Your task to perform on an android device: toggle airplane mode Image 0: 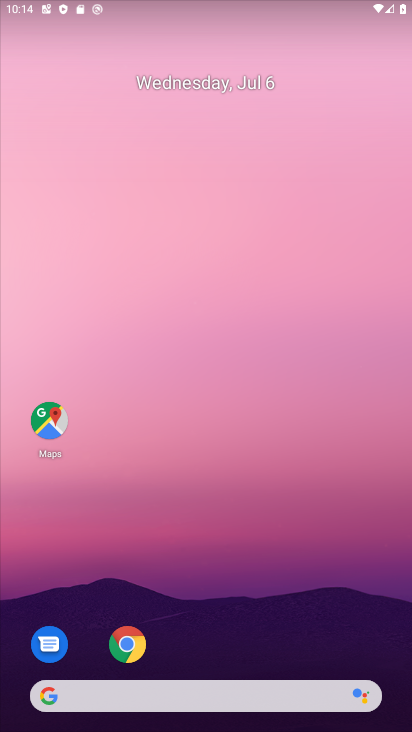
Step 0: drag from (271, 721) to (206, 252)
Your task to perform on an android device: toggle airplane mode Image 1: 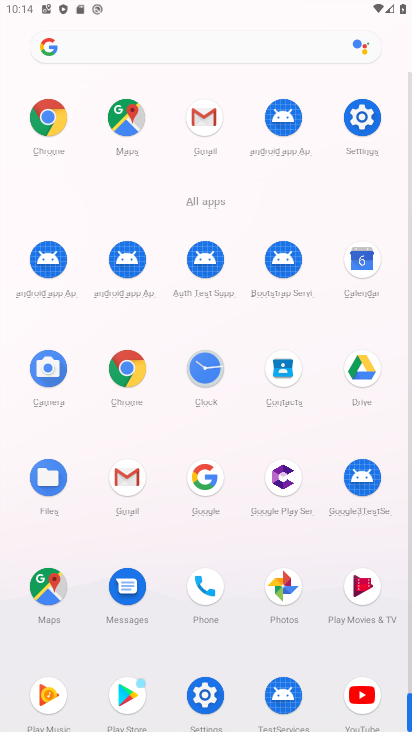
Step 1: click (358, 116)
Your task to perform on an android device: toggle airplane mode Image 2: 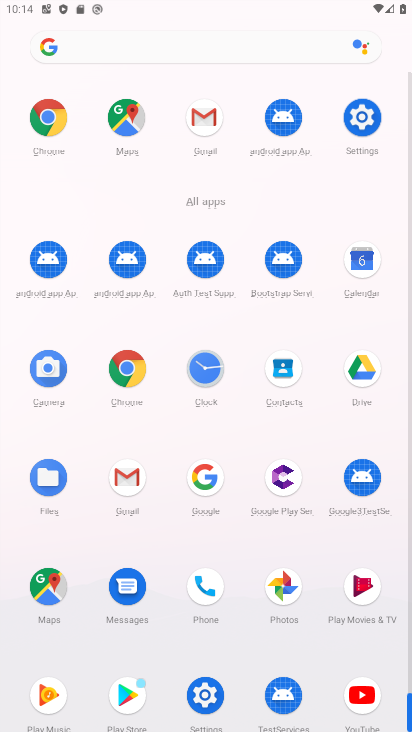
Step 2: click (364, 119)
Your task to perform on an android device: toggle airplane mode Image 3: 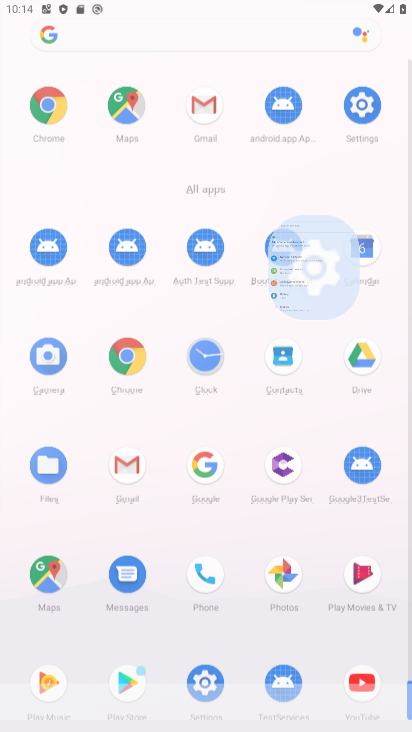
Step 3: click (364, 125)
Your task to perform on an android device: toggle airplane mode Image 4: 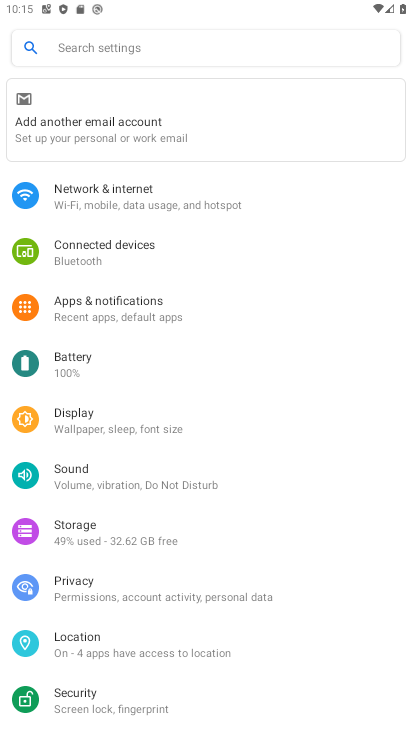
Step 4: drag from (107, 210) to (173, 204)
Your task to perform on an android device: toggle airplane mode Image 5: 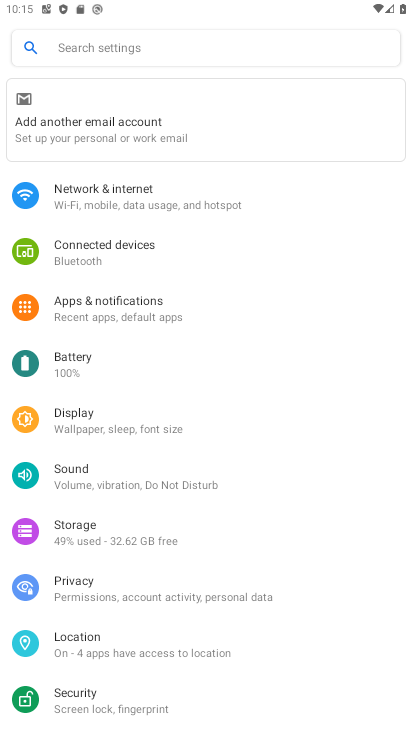
Step 5: click (170, 206)
Your task to perform on an android device: toggle airplane mode Image 6: 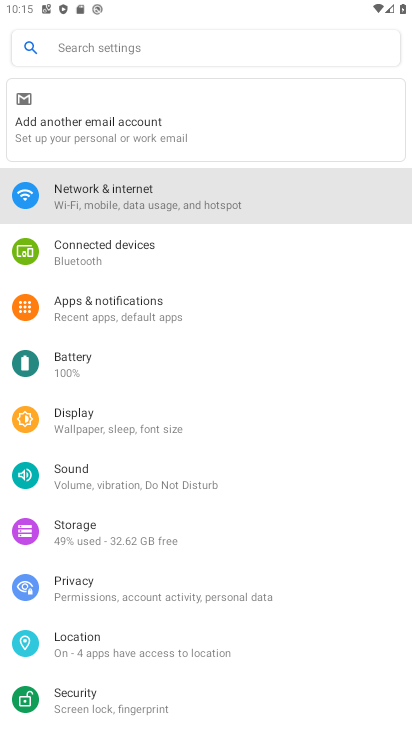
Step 6: click (144, 211)
Your task to perform on an android device: toggle airplane mode Image 7: 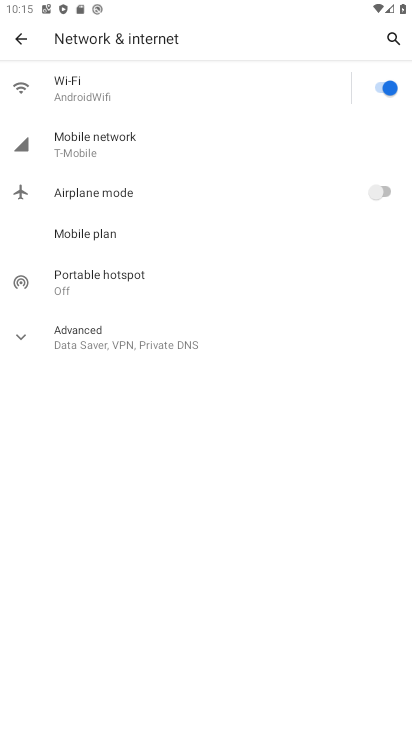
Step 7: click (138, 212)
Your task to perform on an android device: toggle airplane mode Image 8: 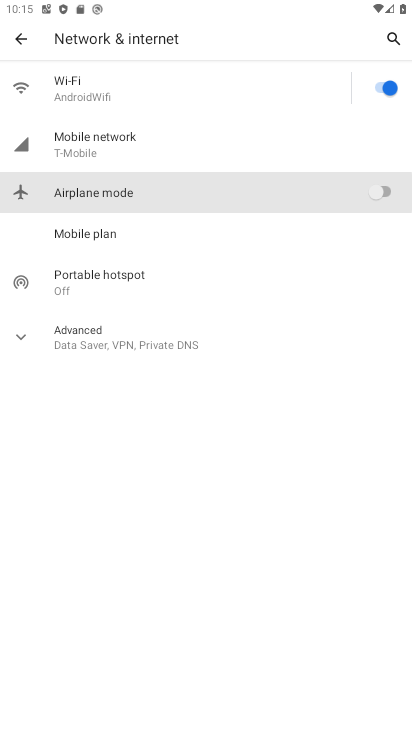
Step 8: click (132, 207)
Your task to perform on an android device: toggle airplane mode Image 9: 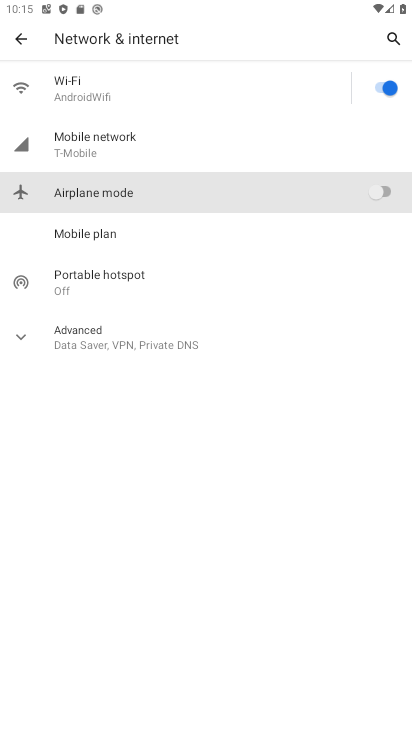
Step 9: click (130, 208)
Your task to perform on an android device: toggle airplane mode Image 10: 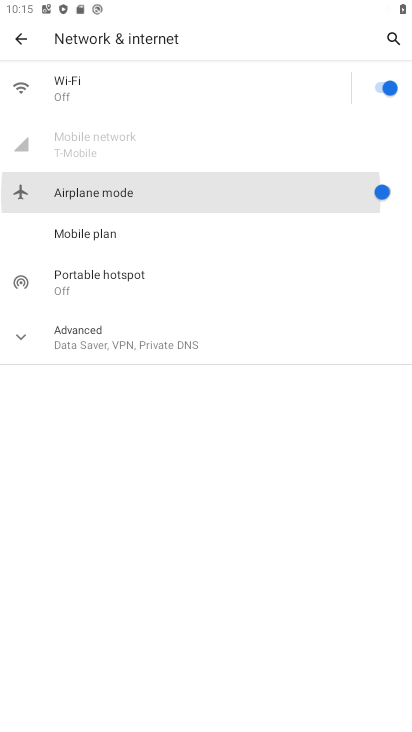
Step 10: click (130, 208)
Your task to perform on an android device: toggle airplane mode Image 11: 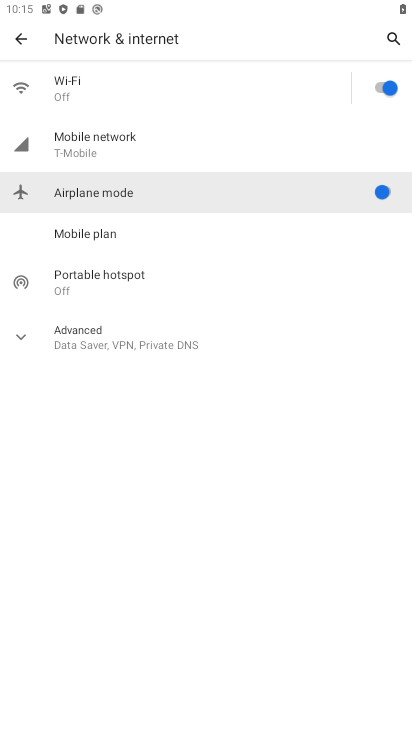
Step 11: click (130, 208)
Your task to perform on an android device: toggle airplane mode Image 12: 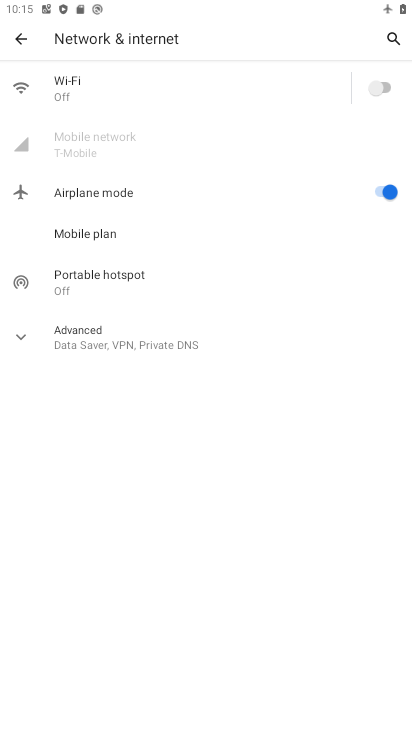
Step 12: click (392, 187)
Your task to perform on an android device: toggle airplane mode Image 13: 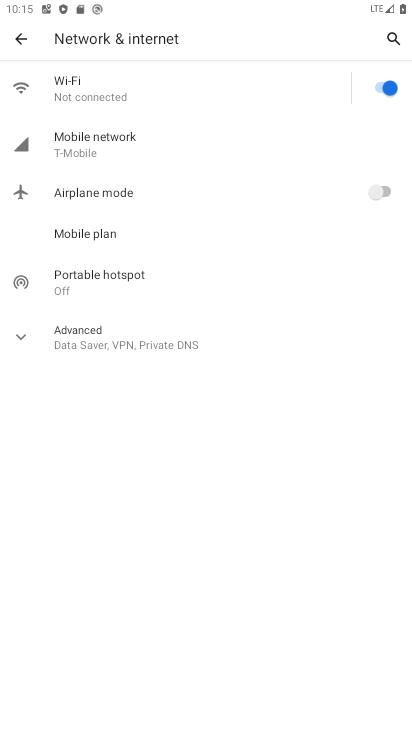
Step 13: task complete